Your task to perform on an android device: Open ESPN.com Image 0: 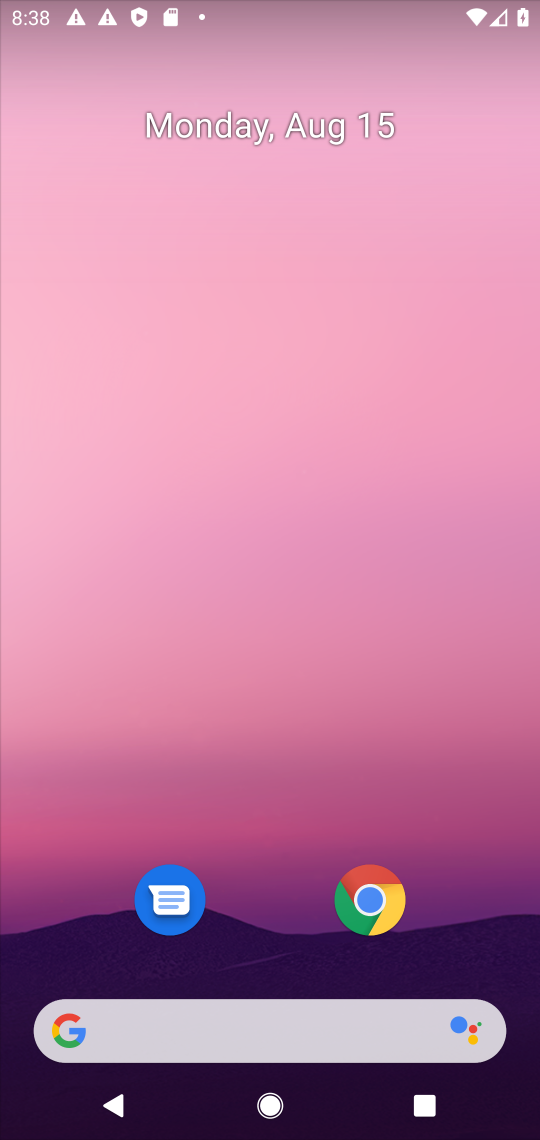
Step 0: click (391, 921)
Your task to perform on an android device: Open ESPN.com Image 1: 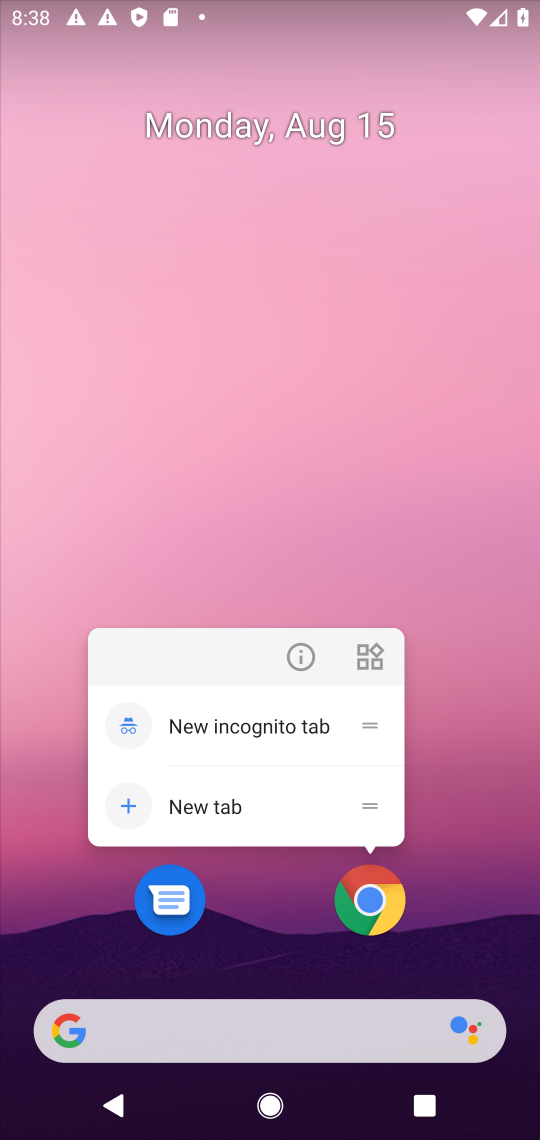
Step 1: click (364, 899)
Your task to perform on an android device: Open ESPN.com Image 2: 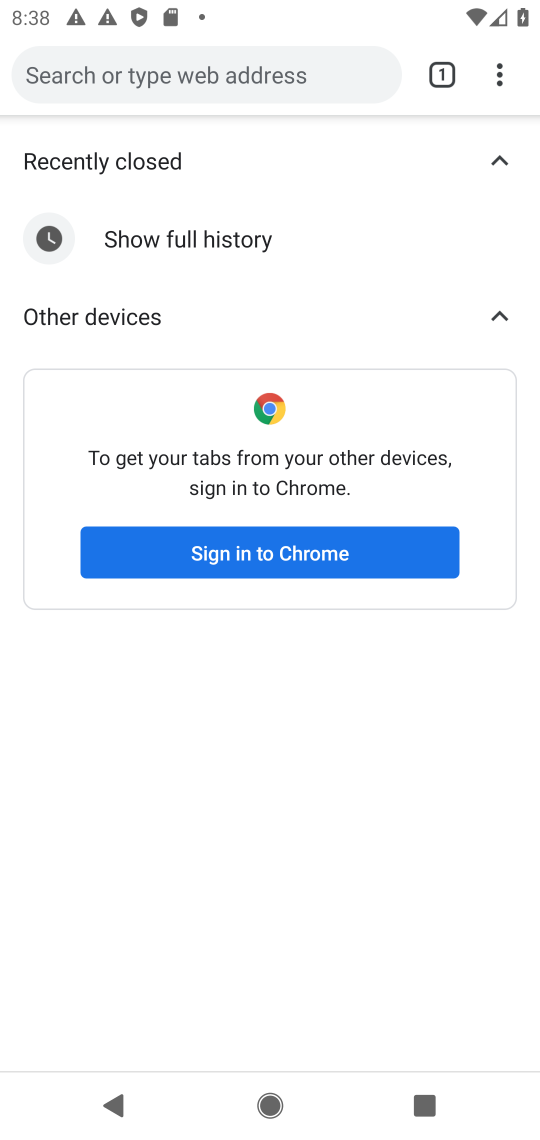
Step 2: click (248, 61)
Your task to perform on an android device: Open ESPN.com Image 3: 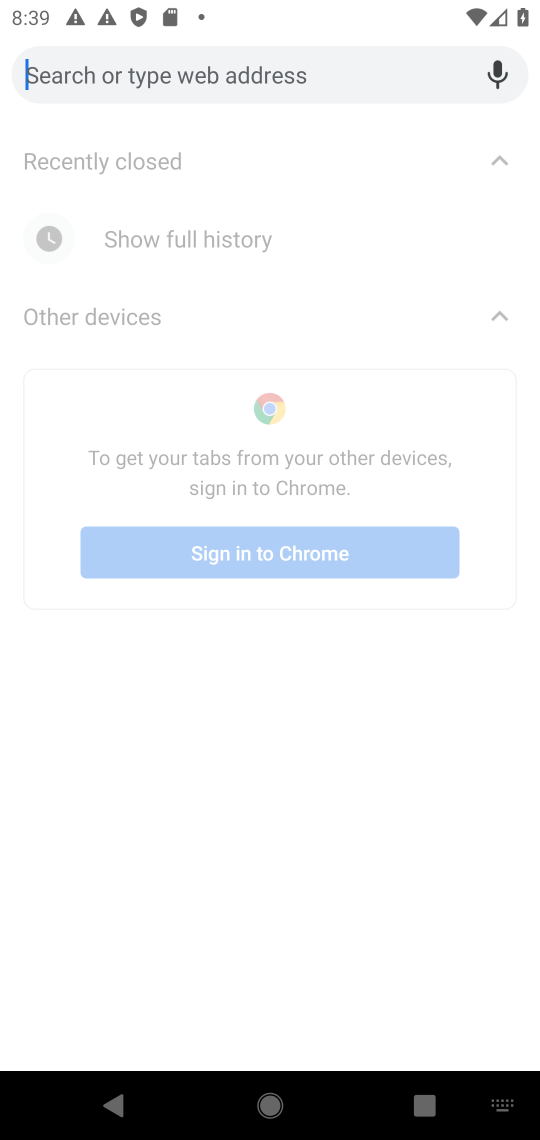
Step 3: type "espn.com"
Your task to perform on an android device: Open ESPN.com Image 4: 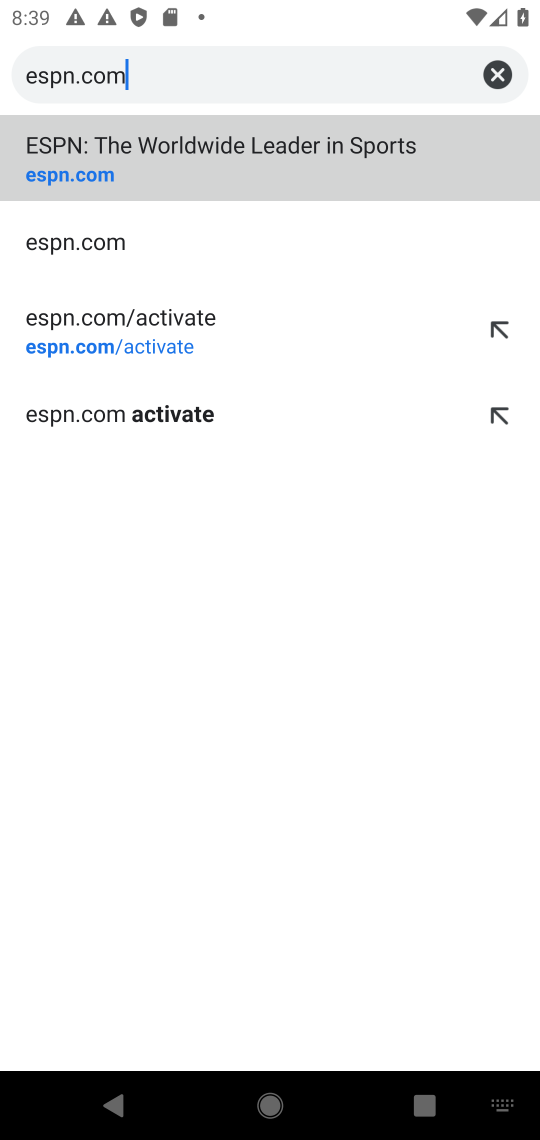
Step 4: click (276, 138)
Your task to perform on an android device: Open ESPN.com Image 5: 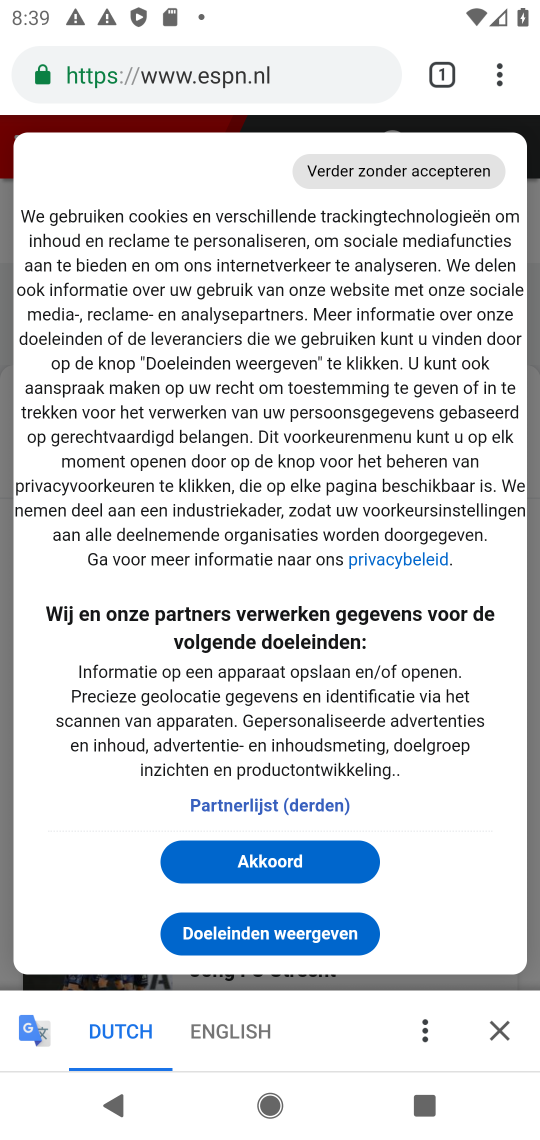
Step 5: task complete